Your task to perform on an android device: empty trash in google photos Image 0: 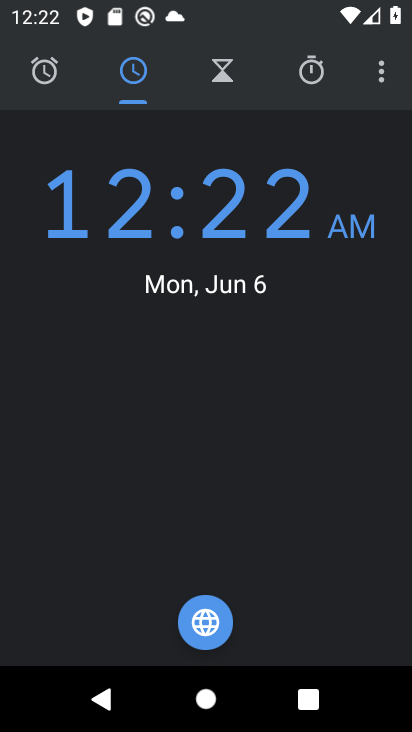
Step 0: press home button
Your task to perform on an android device: empty trash in google photos Image 1: 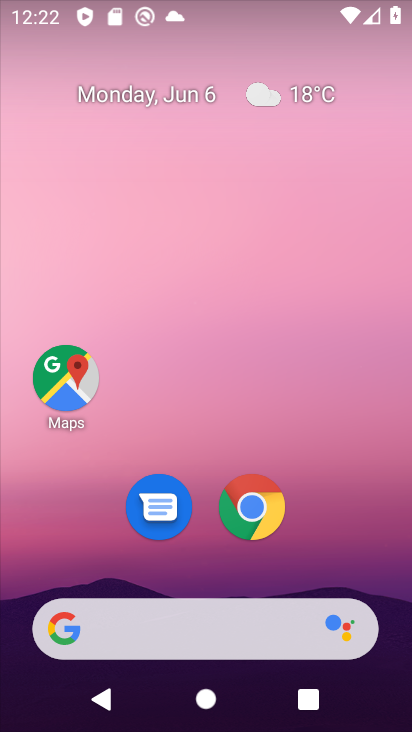
Step 1: drag from (229, 573) to (275, 49)
Your task to perform on an android device: empty trash in google photos Image 2: 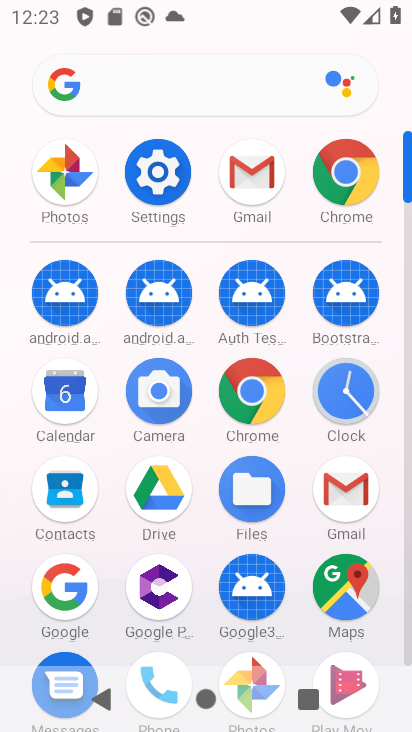
Step 2: drag from (277, 568) to (300, 382)
Your task to perform on an android device: empty trash in google photos Image 3: 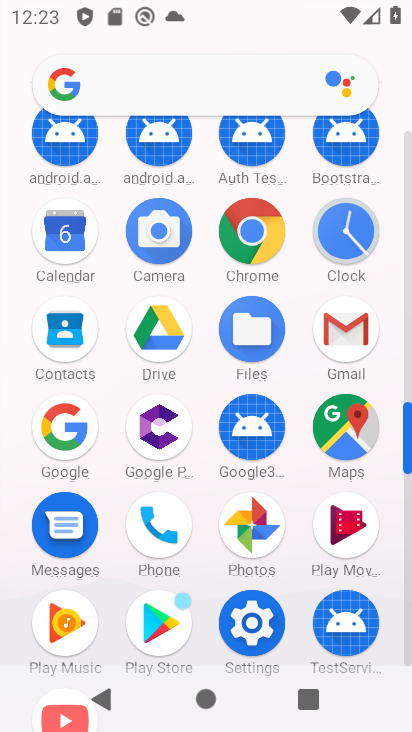
Step 3: click (263, 546)
Your task to perform on an android device: empty trash in google photos Image 4: 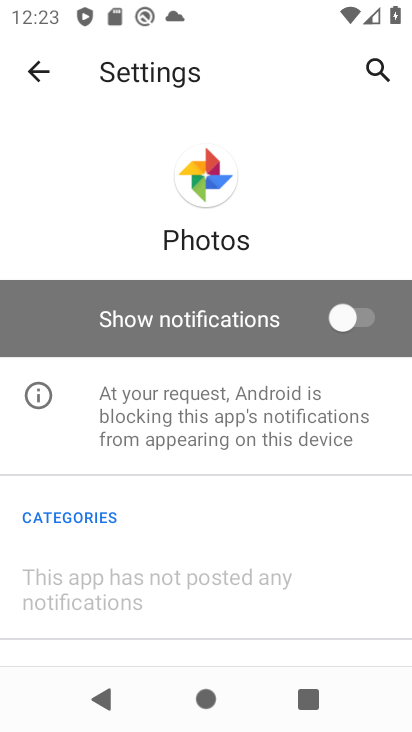
Step 4: click (36, 62)
Your task to perform on an android device: empty trash in google photos Image 5: 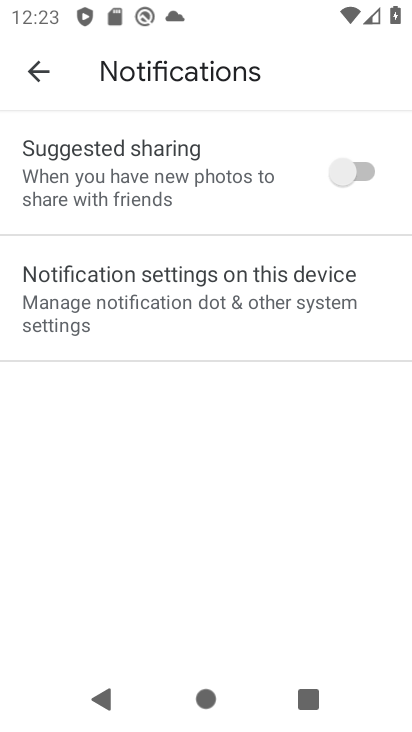
Step 5: click (39, 63)
Your task to perform on an android device: empty trash in google photos Image 6: 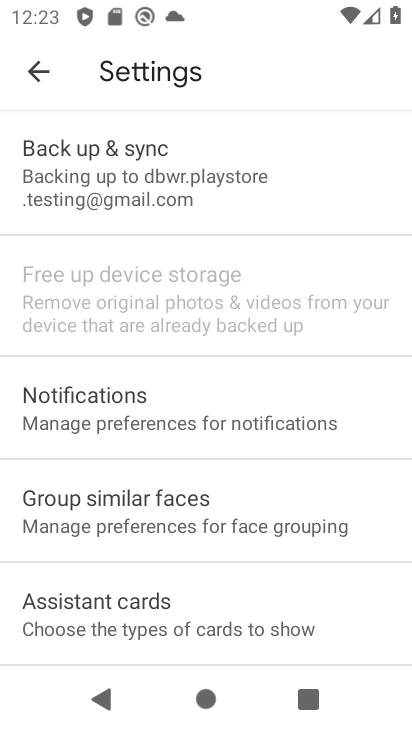
Step 6: click (40, 63)
Your task to perform on an android device: empty trash in google photos Image 7: 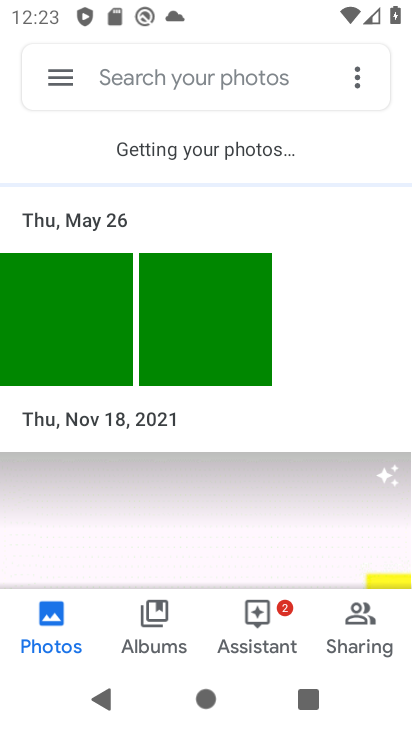
Step 7: click (40, 63)
Your task to perform on an android device: empty trash in google photos Image 8: 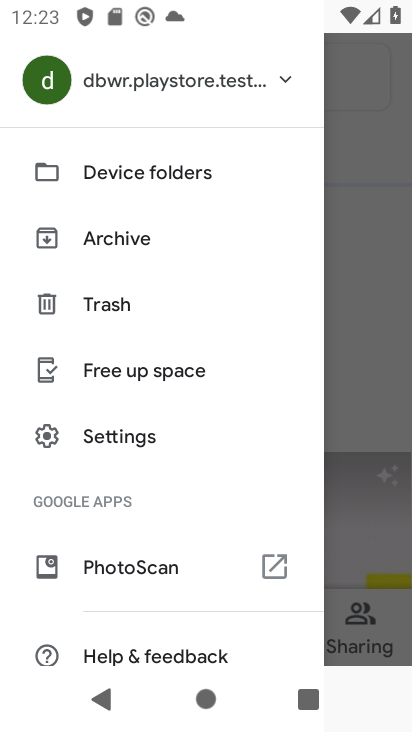
Step 8: click (151, 314)
Your task to perform on an android device: empty trash in google photos Image 9: 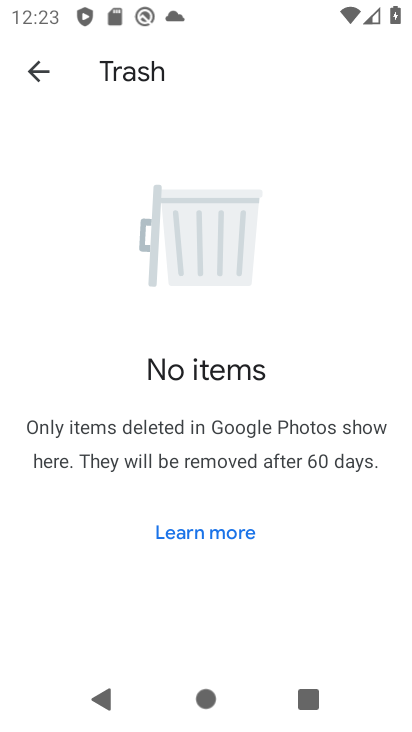
Step 9: task complete